Your task to perform on an android device: turn off notifications settings in the gmail app Image 0: 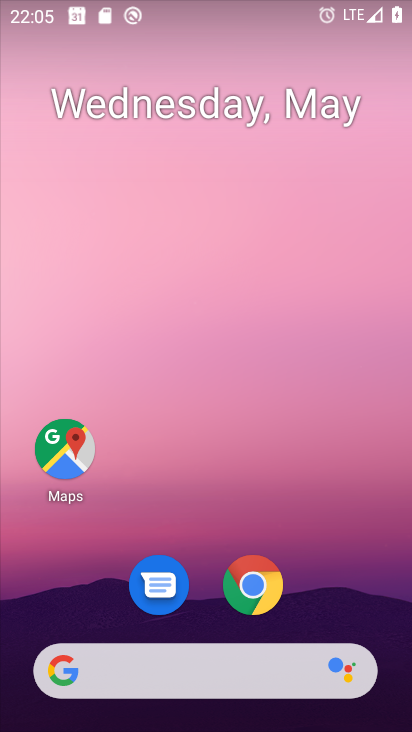
Step 0: drag from (271, 455) to (206, 35)
Your task to perform on an android device: turn off notifications settings in the gmail app Image 1: 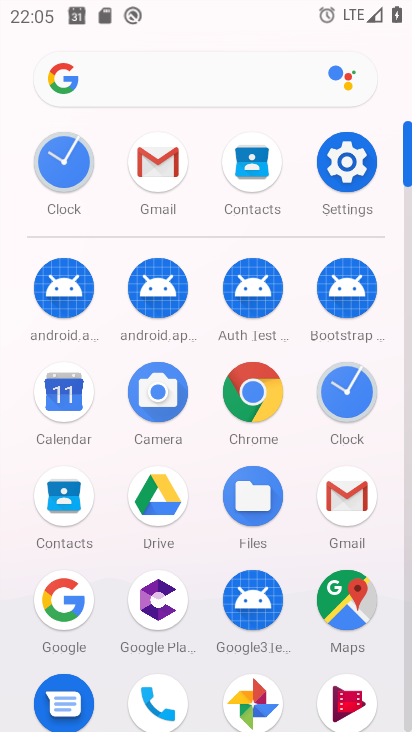
Step 1: click (176, 158)
Your task to perform on an android device: turn off notifications settings in the gmail app Image 2: 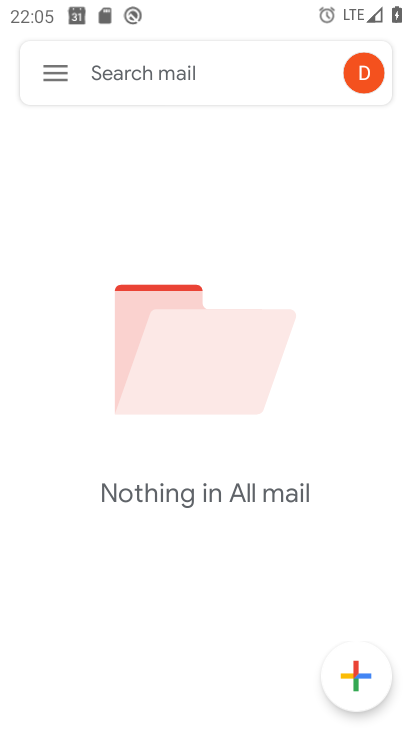
Step 2: click (53, 56)
Your task to perform on an android device: turn off notifications settings in the gmail app Image 3: 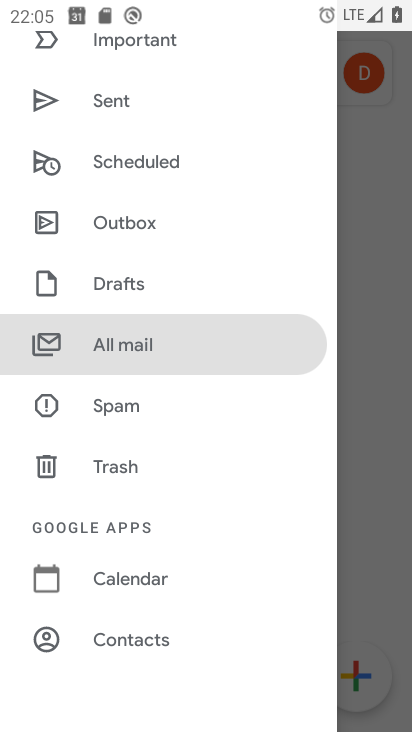
Step 3: drag from (197, 452) to (206, 251)
Your task to perform on an android device: turn off notifications settings in the gmail app Image 4: 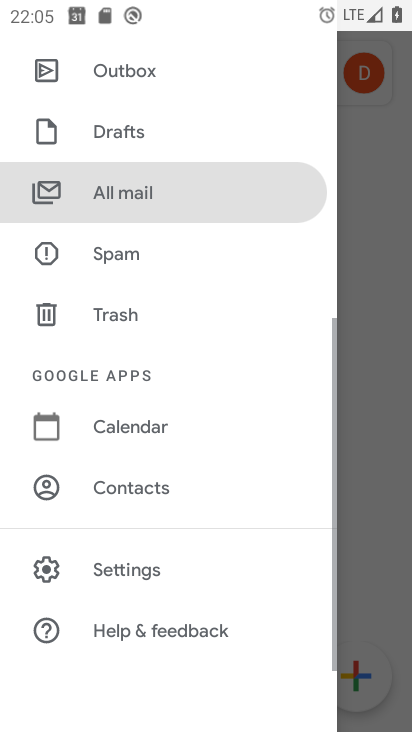
Step 4: click (145, 554)
Your task to perform on an android device: turn off notifications settings in the gmail app Image 5: 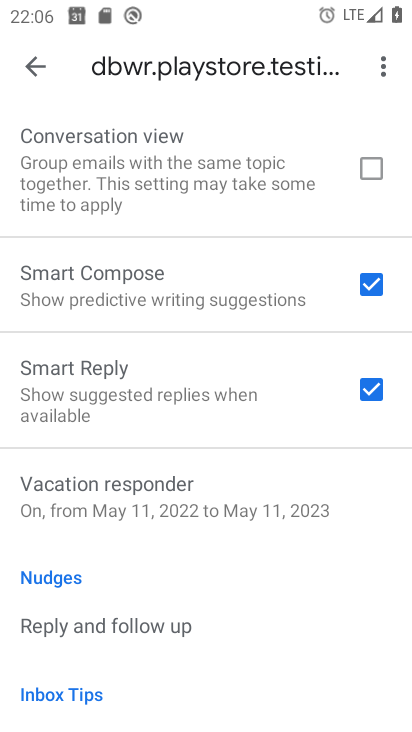
Step 5: drag from (203, 209) to (236, 626)
Your task to perform on an android device: turn off notifications settings in the gmail app Image 6: 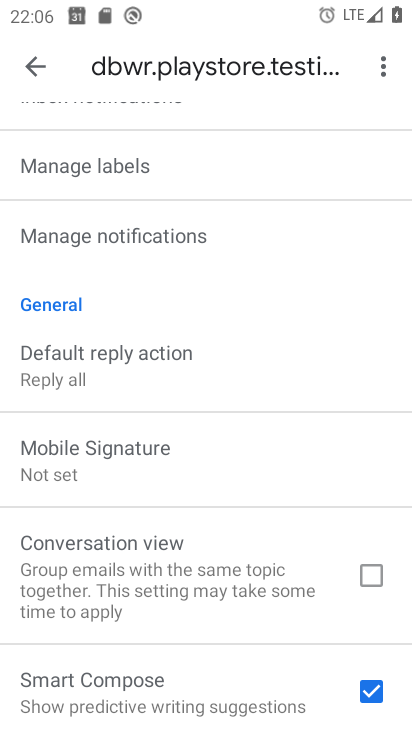
Step 6: click (173, 234)
Your task to perform on an android device: turn off notifications settings in the gmail app Image 7: 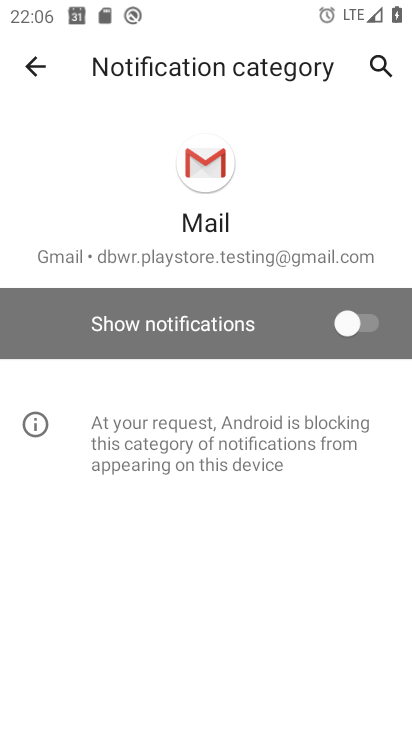
Step 7: task complete